Your task to perform on an android device: turn off sleep mode Image 0: 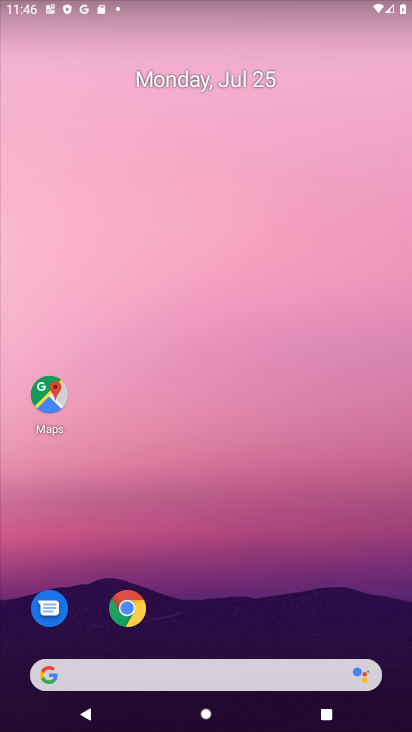
Step 0: drag from (190, 637) to (218, 118)
Your task to perform on an android device: turn off sleep mode Image 1: 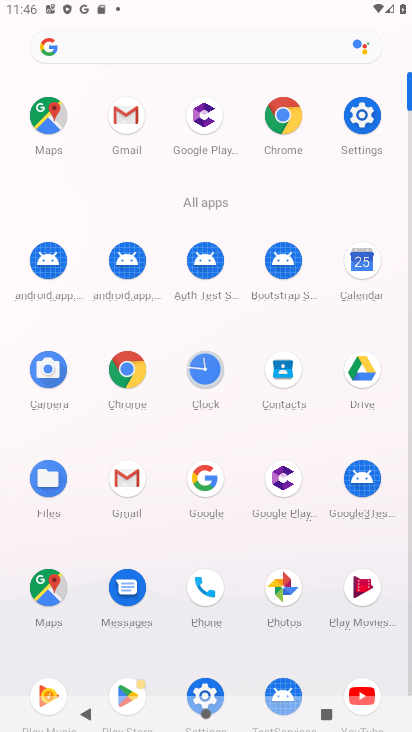
Step 1: click (351, 117)
Your task to perform on an android device: turn off sleep mode Image 2: 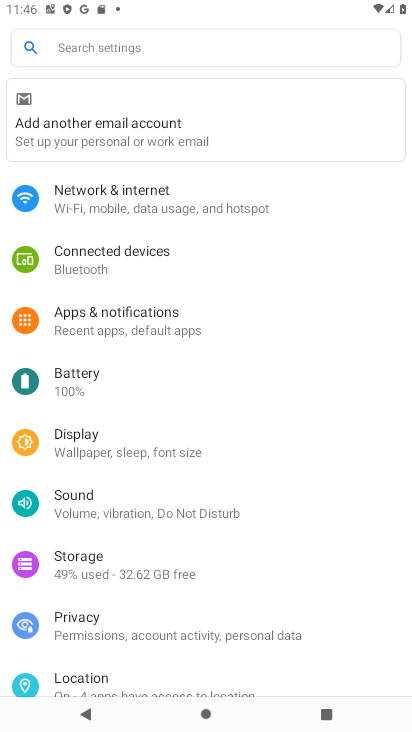
Step 2: task complete